Your task to perform on an android device: add a label to a message in the gmail app Image 0: 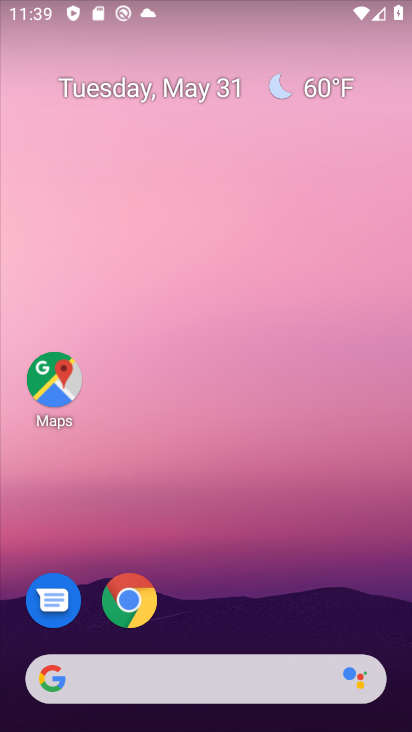
Step 0: drag from (329, 615) to (336, 102)
Your task to perform on an android device: add a label to a message in the gmail app Image 1: 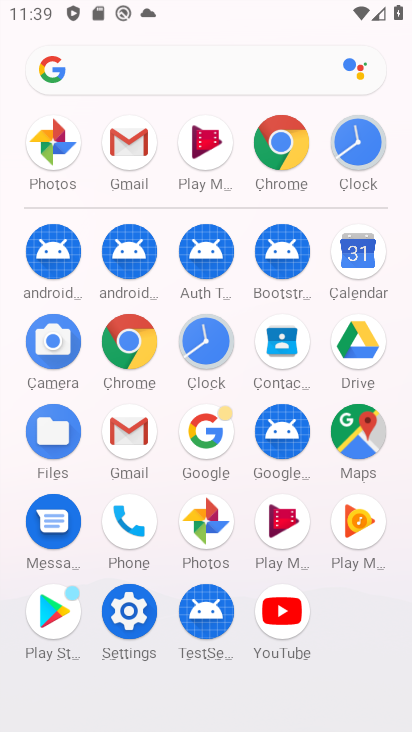
Step 1: click (129, 432)
Your task to perform on an android device: add a label to a message in the gmail app Image 2: 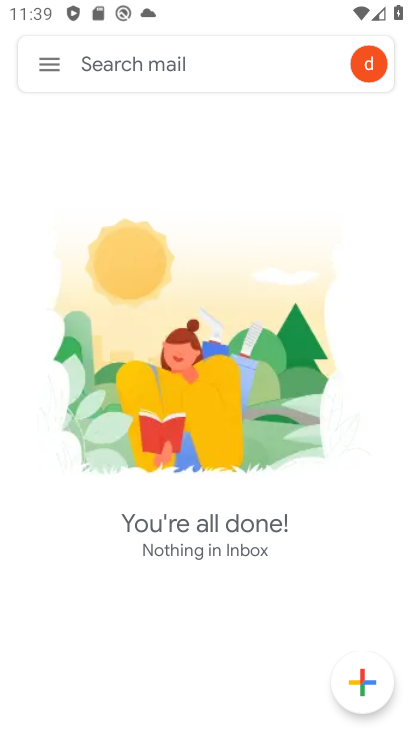
Step 2: click (54, 71)
Your task to perform on an android device: add a label to a message in the gmail app Image 3: 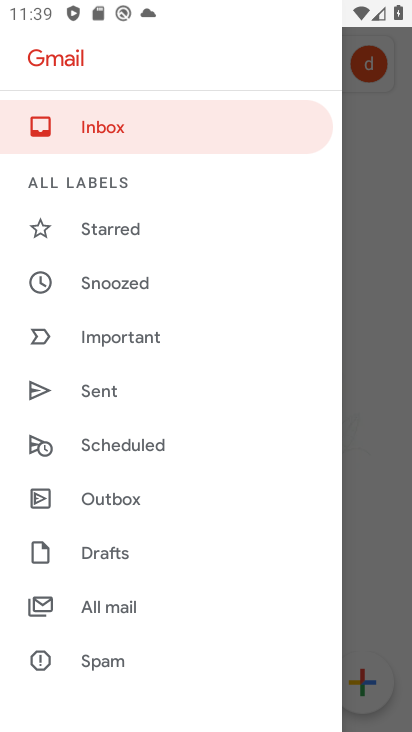
Step 3: drag from (278, 487) to (282, 302)
Your task to perform on an android device: add a label to a message in the gmail app Image 4: 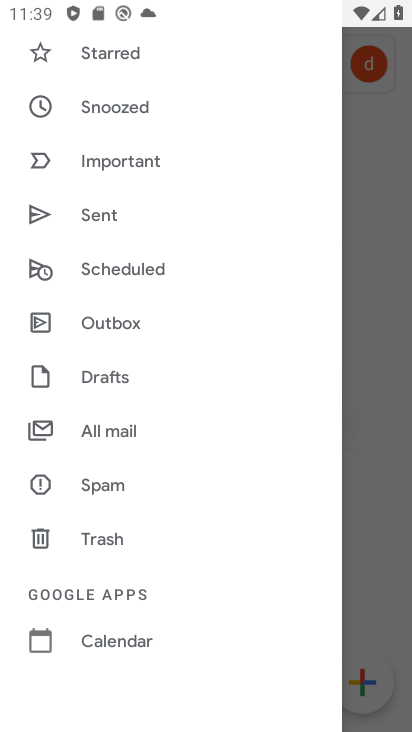
Step 4: drag from (264, 525) to (266, 332)
Your task to perform on an android device: add a label to a message in the gmail app Image 5: 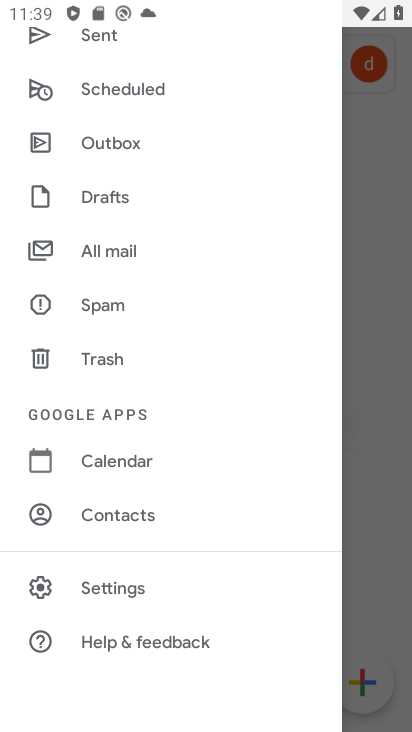
Step 5: drag from (247, 567) to (265, 377)
Your task to perform on an android device: add a label to a message in the gmail app Image 6: 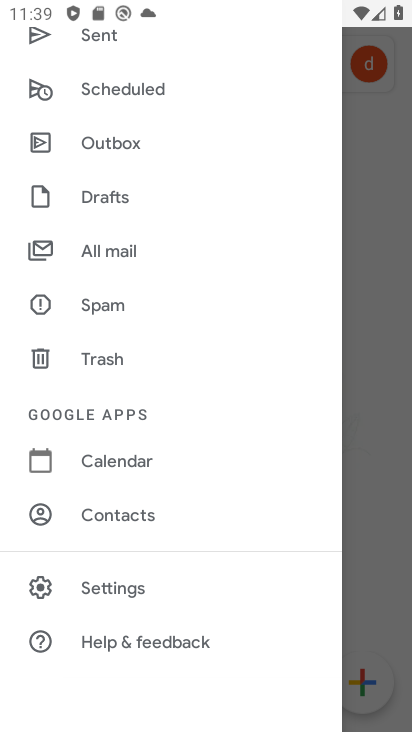
Step 6: drag from (265, 242) to (261, 377)
Your task to perform on an android device: add a label to a message in the gmail app Image 7: 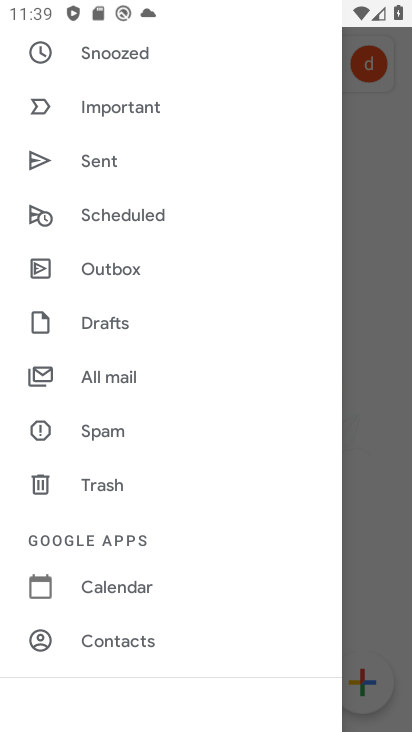
Step 7: drag from (257, 208) to (256, 360)
Your task to perform on an android device: add a label to a message in the gmail app Image 8: 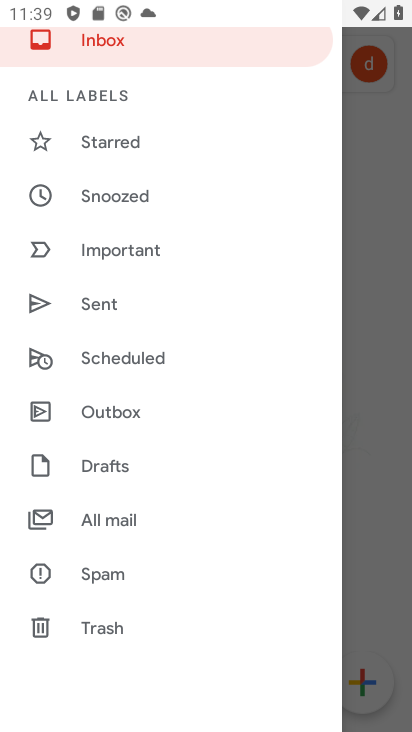
Step 8: drag from (257, 179) to (258, 351)
Your task to perform on an android device: add a label to a message in the gmail app Image 9: 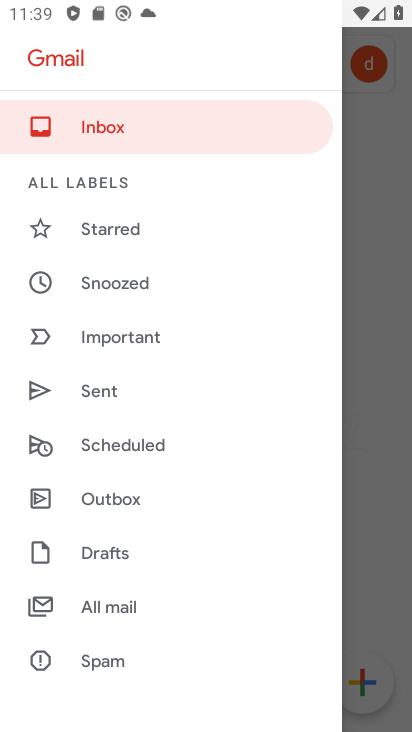
Step 9: click (172, 129)
Your task to perform on an android device: add a label to a message in the gmail app Image 10: 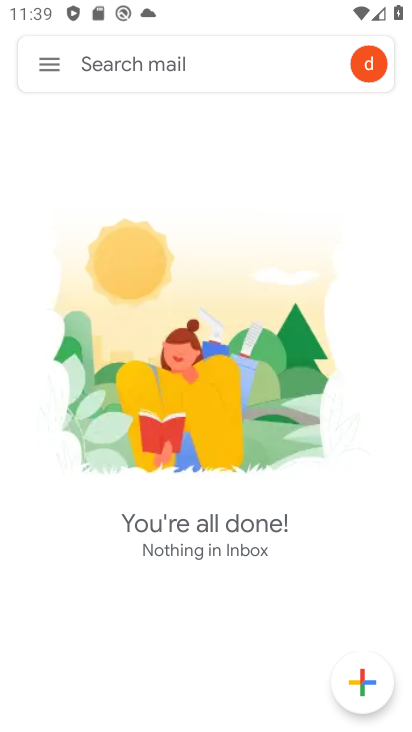
Step 10: task complete